Your task to perform on an android device: Go to Google Image 0: 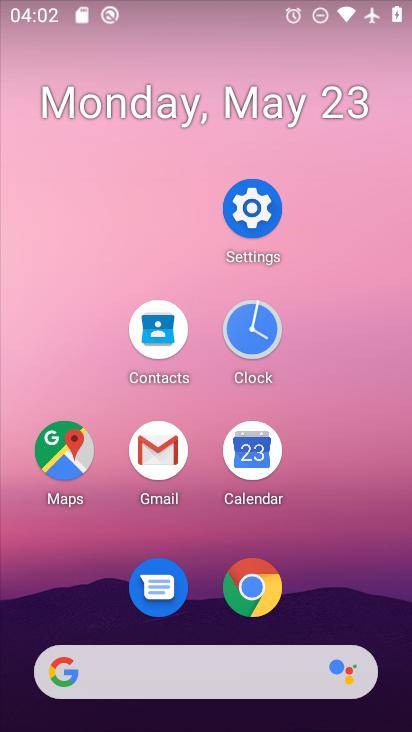
Step 0: click (223, 681)
Your task to perform on an android device: Go to Google Image 1: 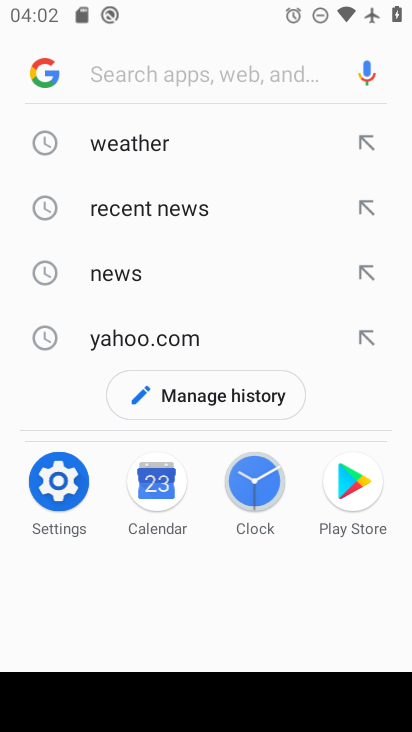
Step 1: type "google.com"
Your task to perform on an android device: Go to Google Image 2: 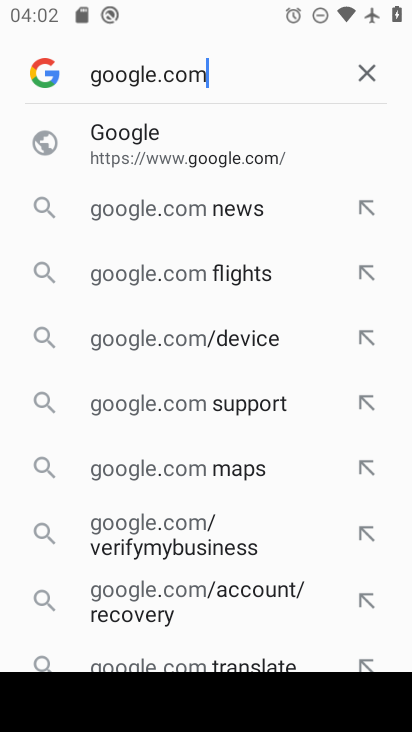
Step 2: click (198, 143)
Your task to perform on an android device: Go to Google Image 3: 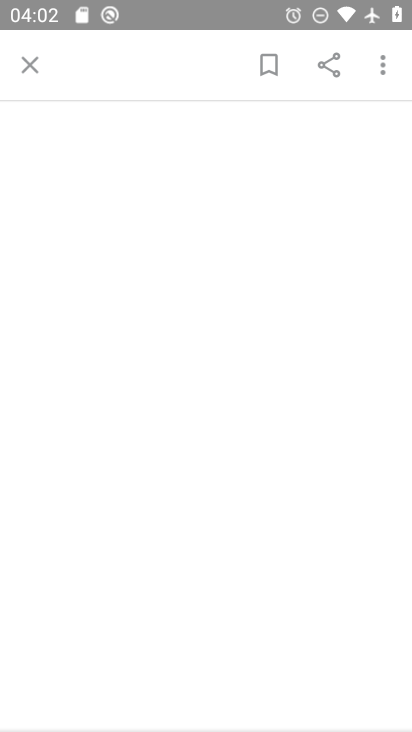
Step 3: task complete